Your task to perform on an android device: make emails show in primary in the gmail app Image 0: 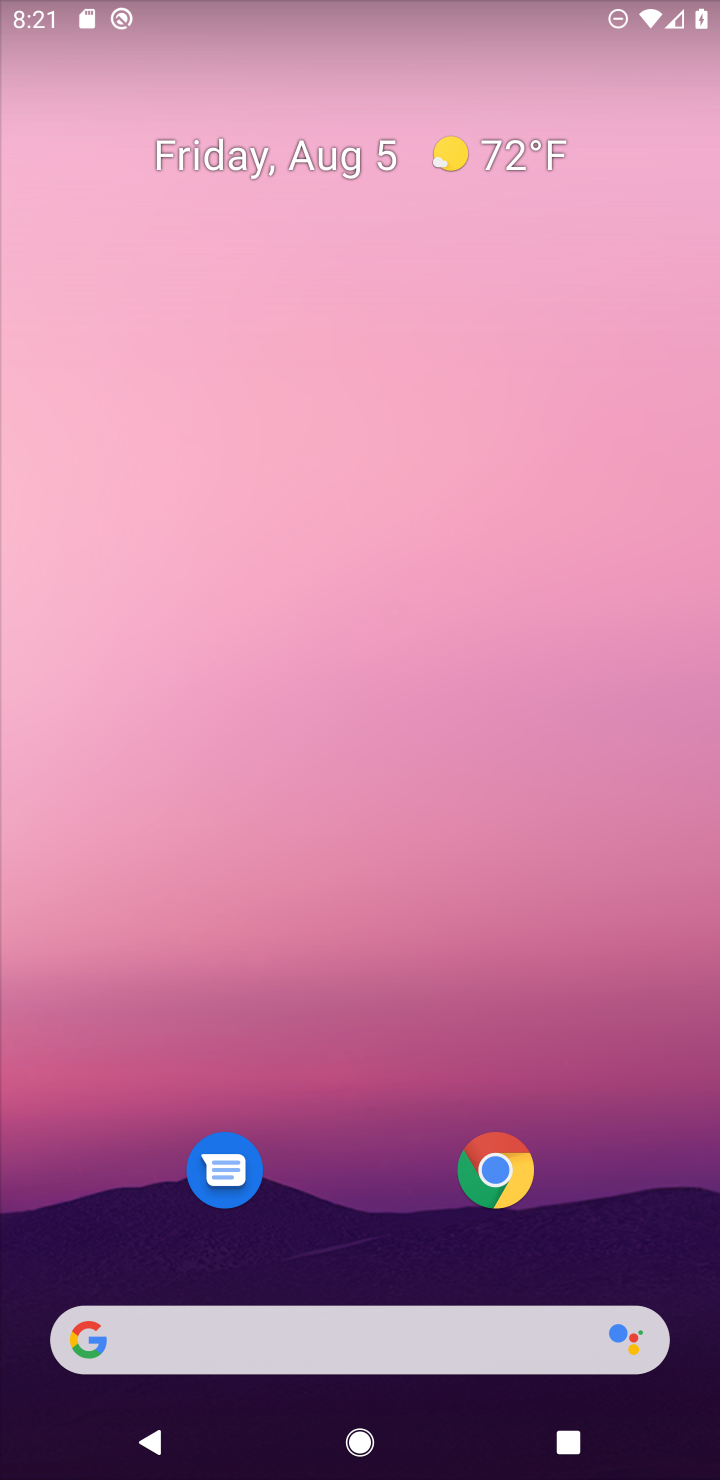
Step 0: drag from (664, 1210) to (599, 156)
Your task to perform on an android device: make emails show in primary in the gmail app Image 1: 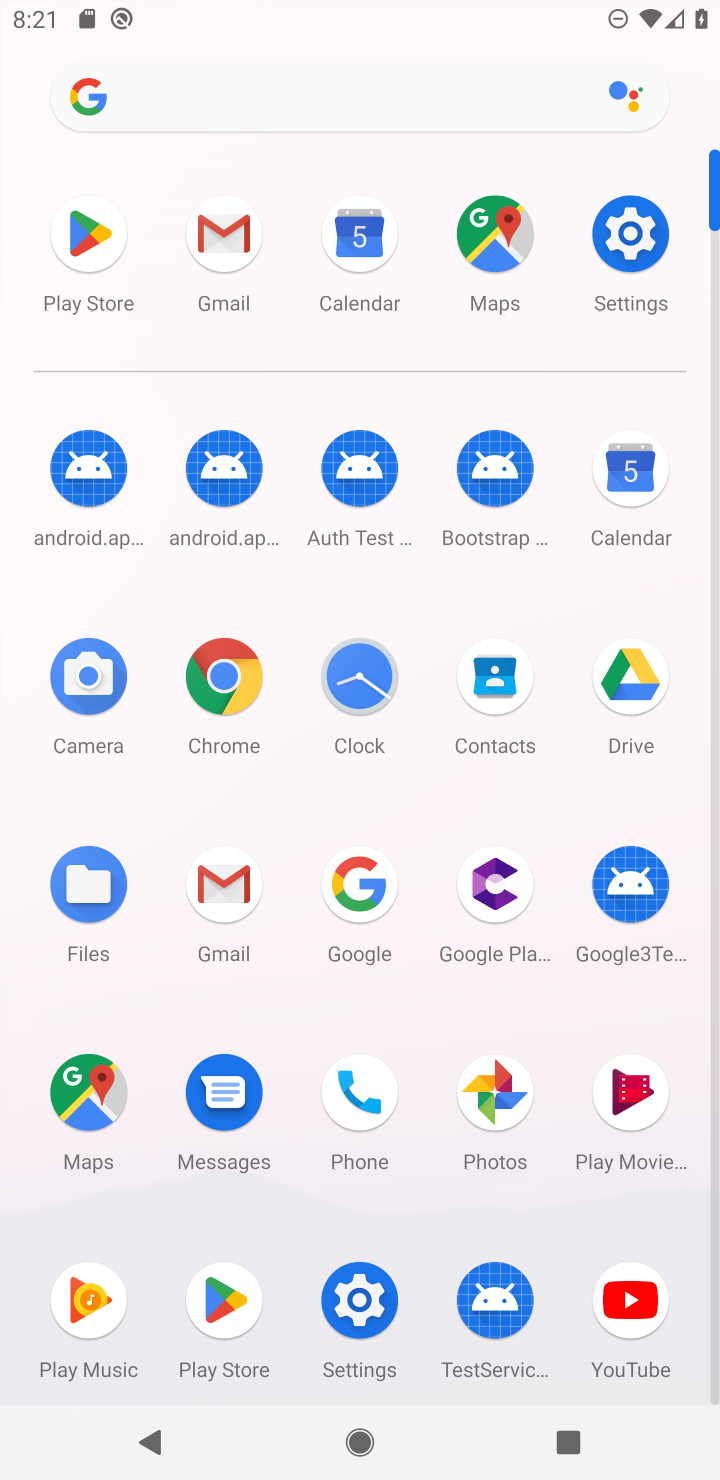
Step 1: click (222, 892)
Your task to perform on an android device: make emails show in primary in the gmail app Image 2: 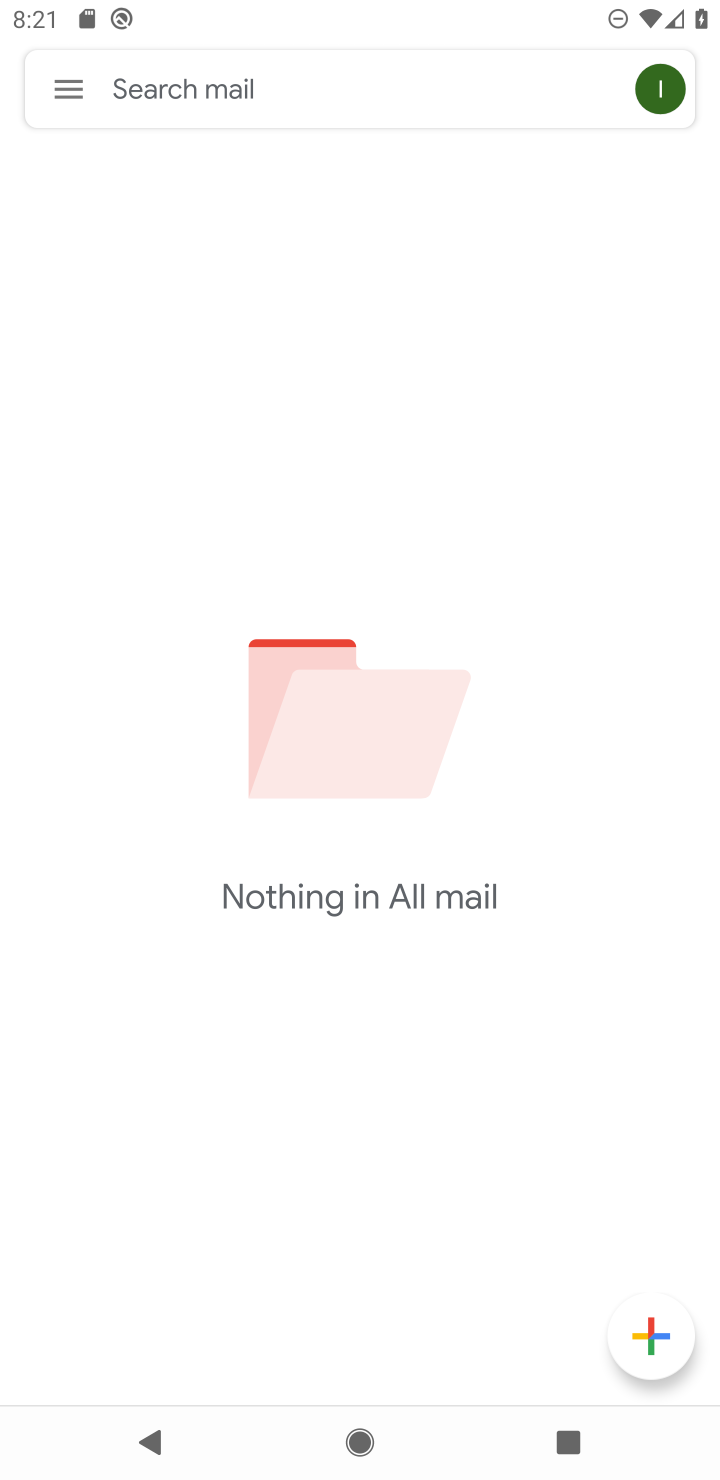
Step 2: click (66, 92)
Your task to perform on an android device: make emails show in primary in the gmail app Image 3: 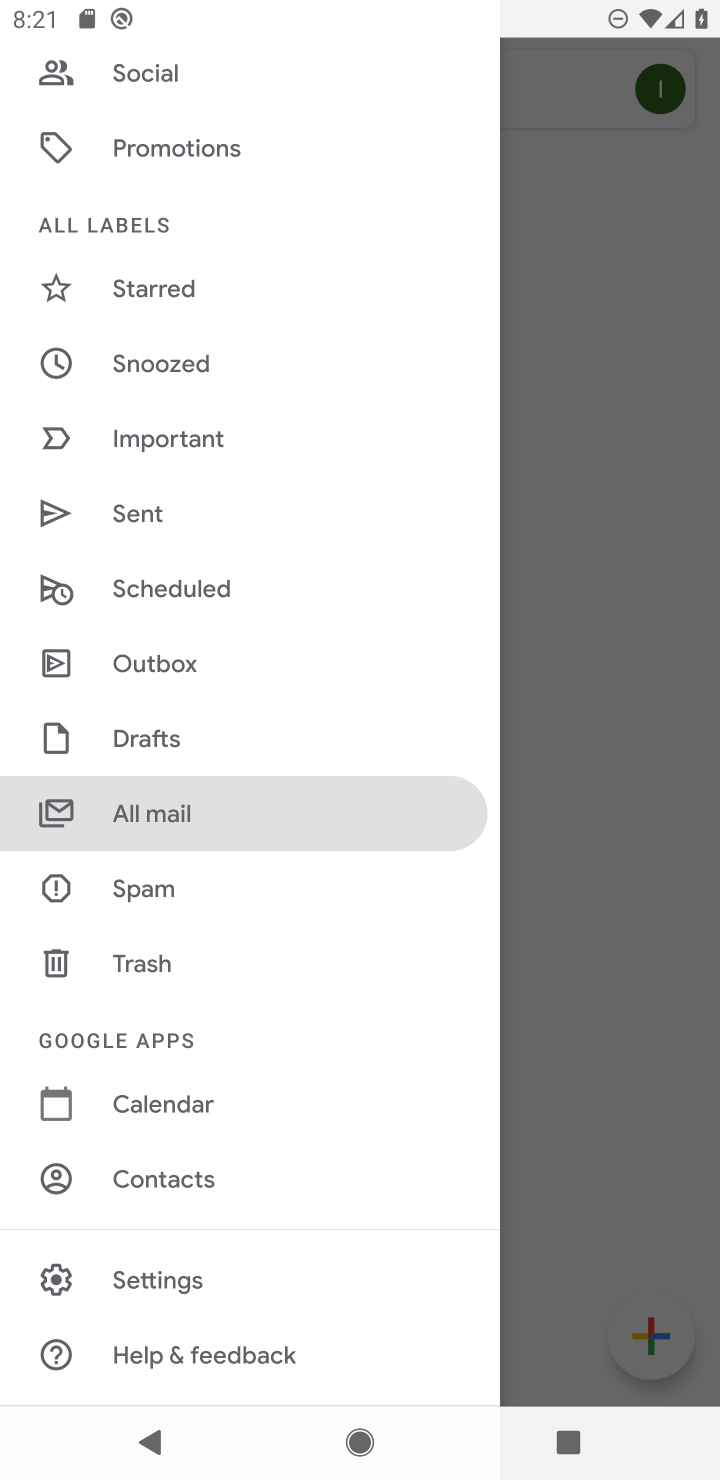
Step 3: click (148, 1273)
Your task to perform on an android device: make emails show in primary in the gmail app Image 4: 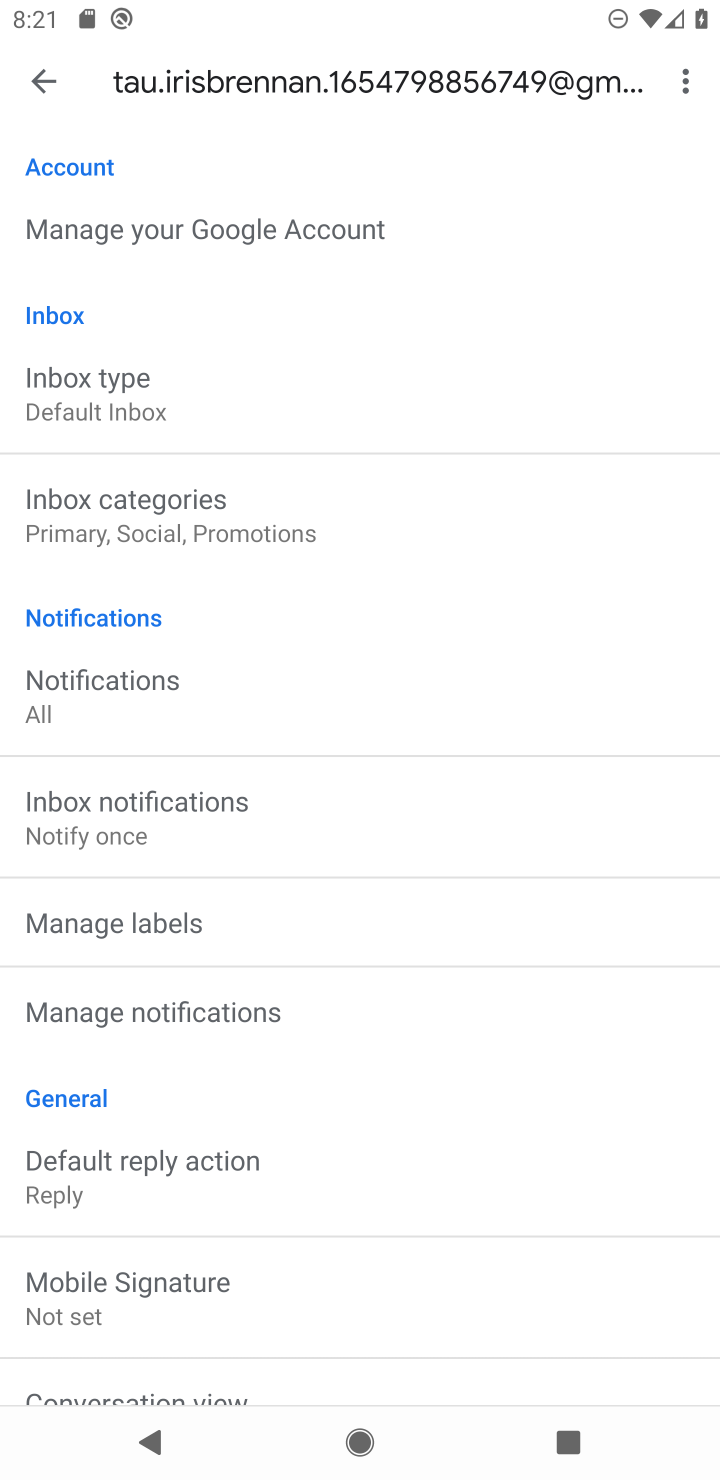
Step 4: click (135, 519)
Your task to perform on an android device: make emails show in primary in the gmail app Image 5: 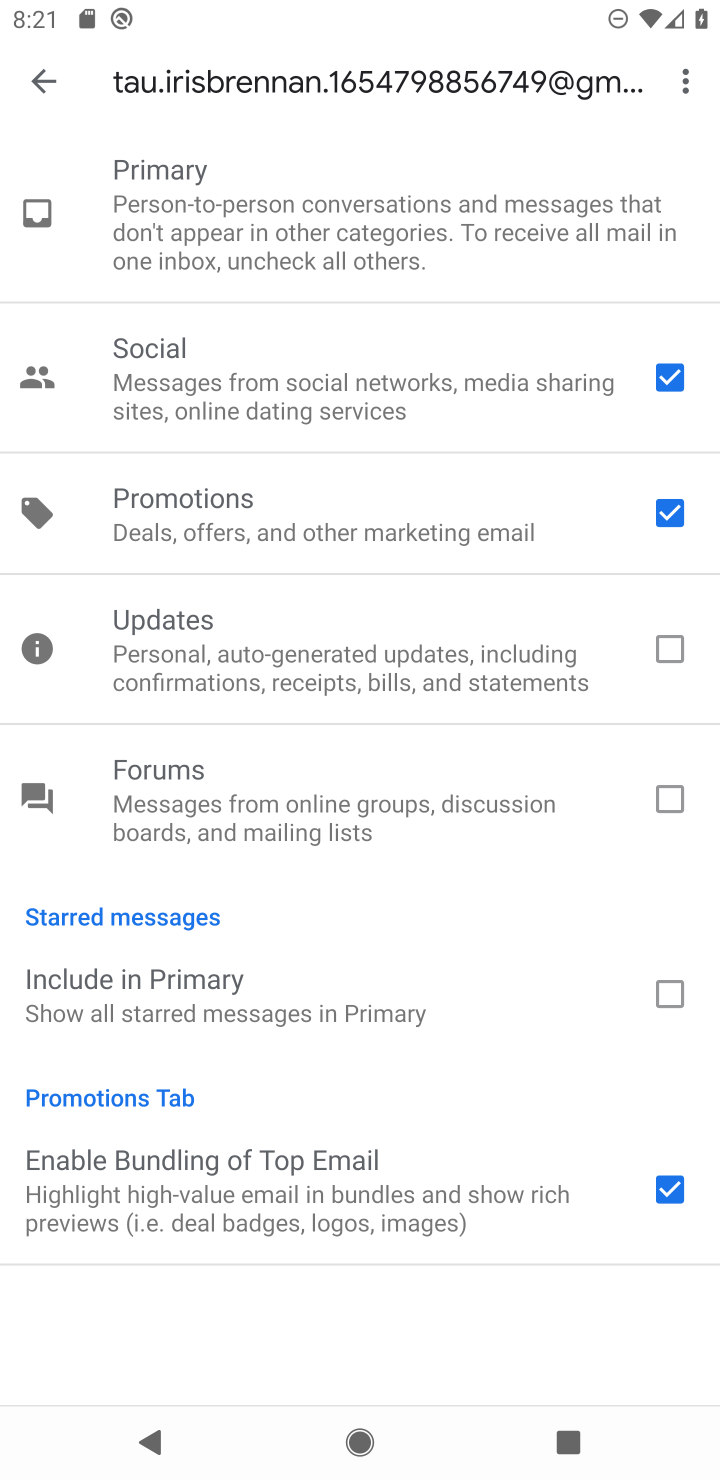
Step 5: click (654, 508)
Your task to perform on an android device: make emails show in primary in the gmail app Image 6: 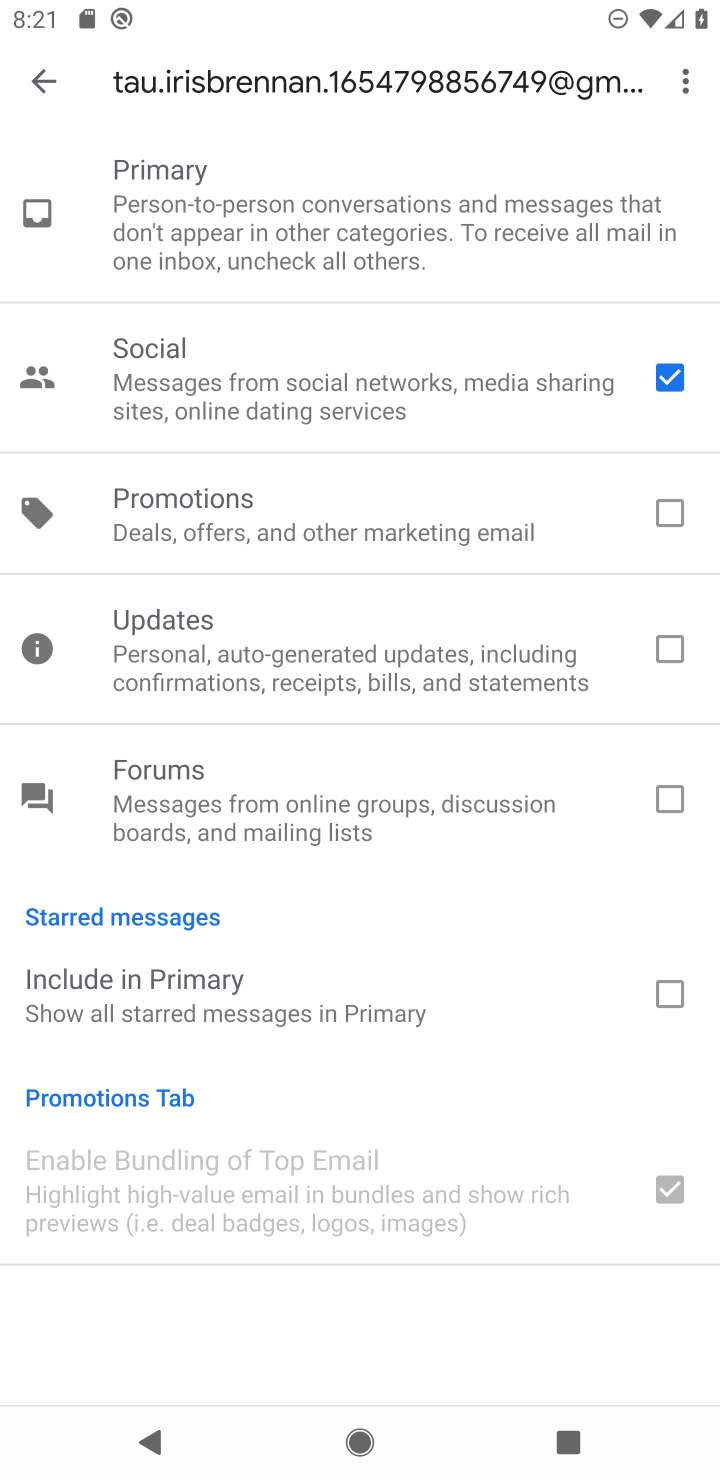
Step 6: click (667, 372)
Your task to perform on an android device: make emails show in primary in the gmail app Image 7: 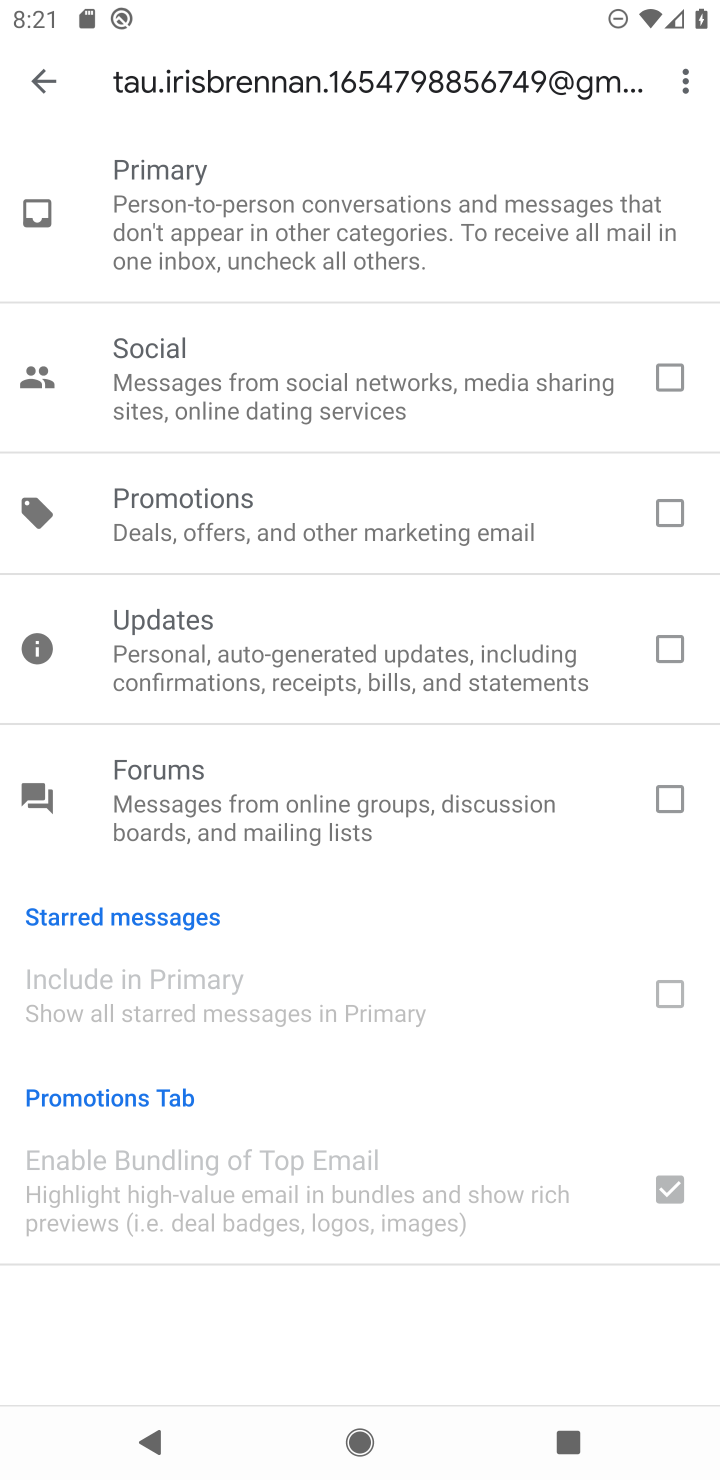
Step 7: task complete